Your task to perform on an android device: What's the weather today? Image 0: 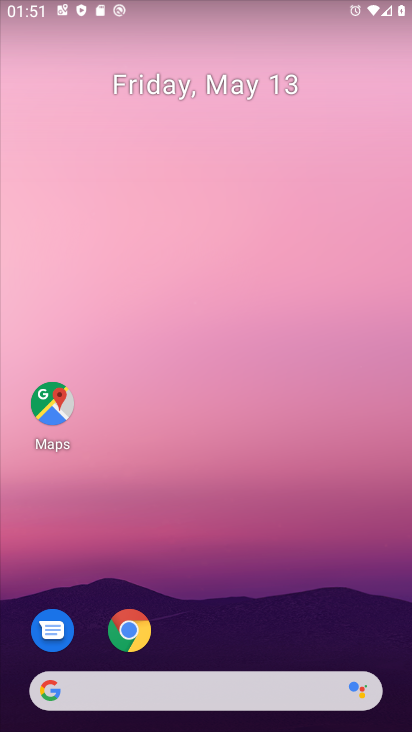
Step 0: drag from (297, 714) to (279, 218)
Your task to perform on an android device: What's the weather today? Image 1: 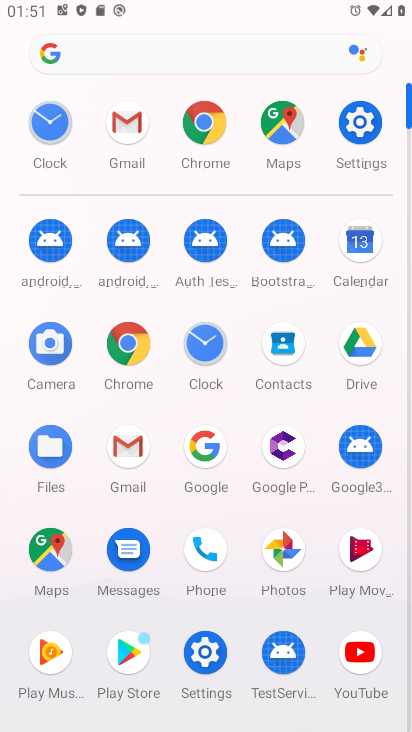
Step 1: click (146, 58)
Your task to perform on an android device: What's the weather today? Image 2: 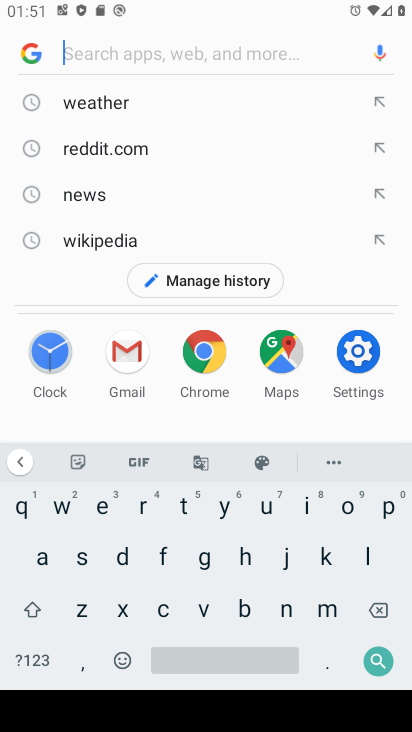
Step 2: click (146, 106)
Your task to perform on an android device: What's the weather today? Image 3: 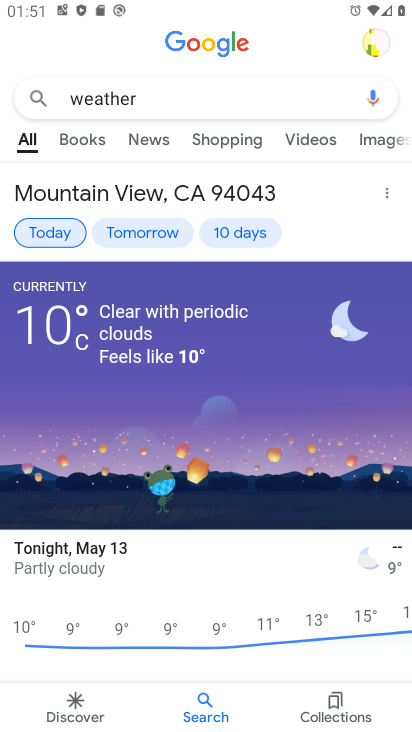
Step 3: task complete